Your task to perform on an android device: Open settings Image 0: 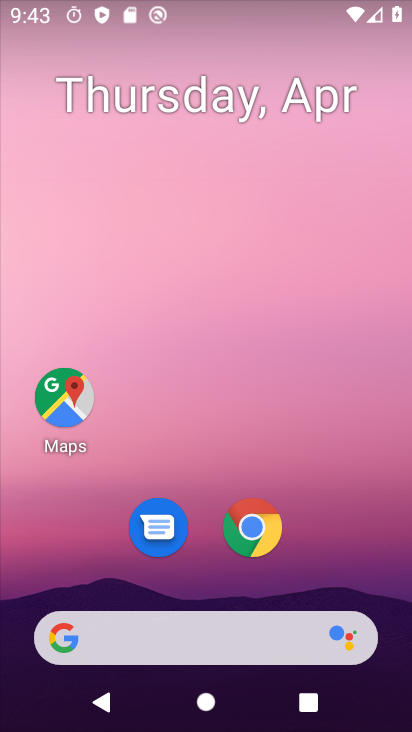
Step 0: drag from (192, 623) to (328, 30)
Your task to perform on an android device: Open settings Image 1: 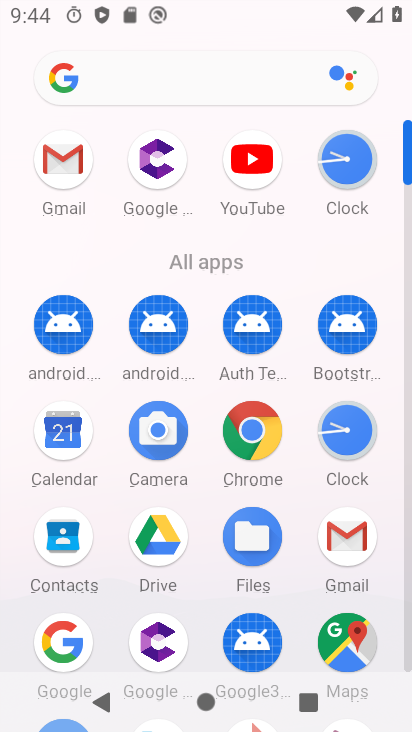
Step 1: drag from (242, 349) to (307, 106)
Your task to perform on an android device: Open settings Image 2: 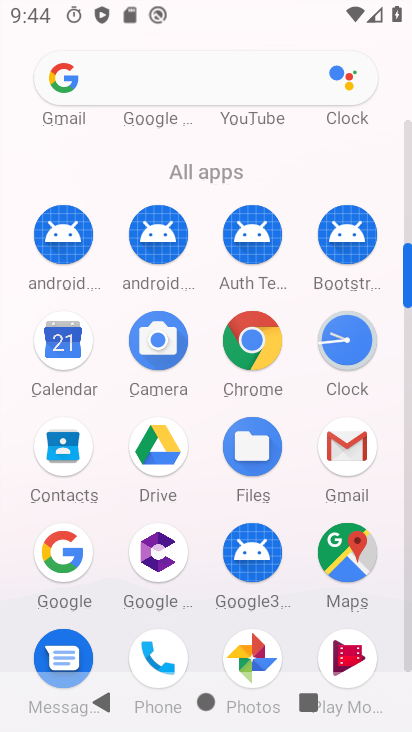
Step 2: drag from (185, 584) to (351, 147)
Your task to perform on an android device: Open settings Image 3: 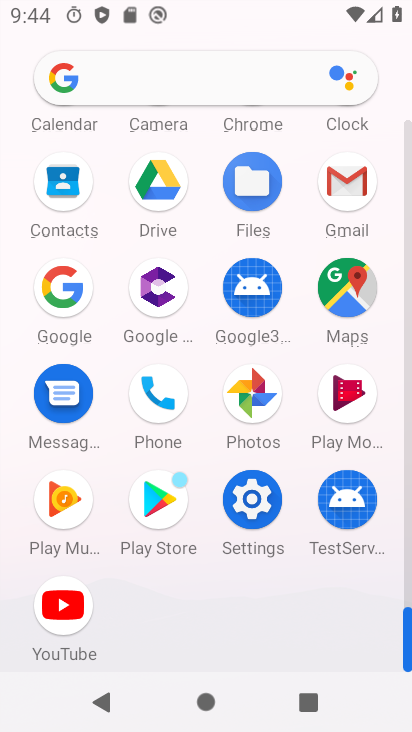
Step 3: click (262, 518)
Your task to perform on an android device: Open settings Image 4: 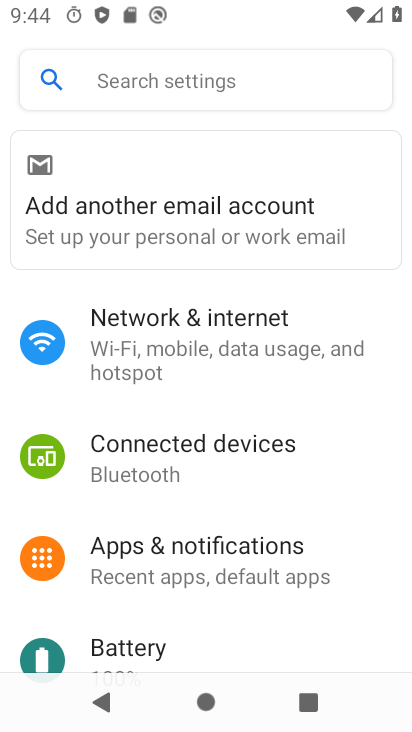
Step 4: task complete